Your task to perform on an android device: Go to ESPN.com Image 0: 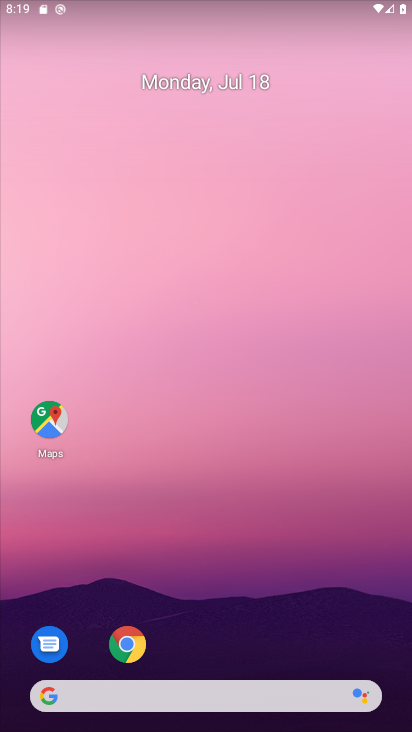
Step 0: click (238, 693)
Your task to perform on an android device: Go to ESPN.com Image 1: 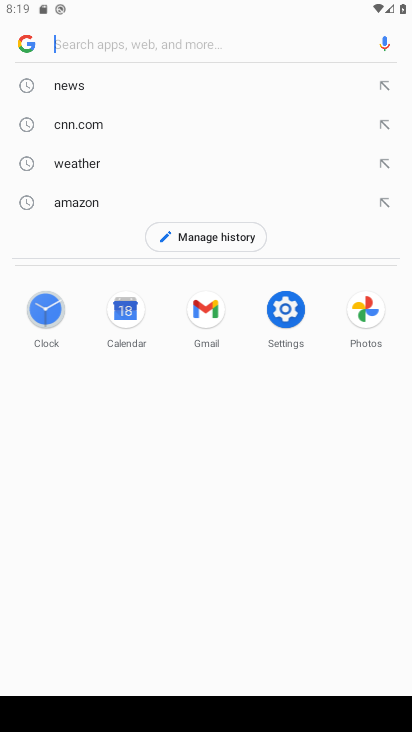
Step 1: type "espn.com"
Your task to perform on an android device: Go to ESPN.com Image 2: 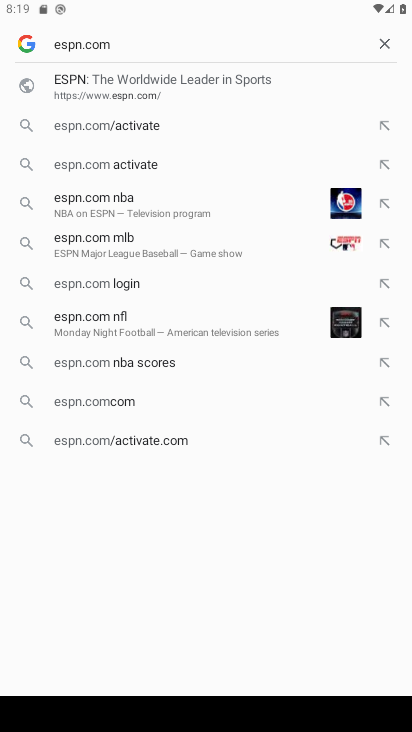
Step 2: click (150, 96)
Your task to perform on an android device: Go to ESPN.com Image 3: 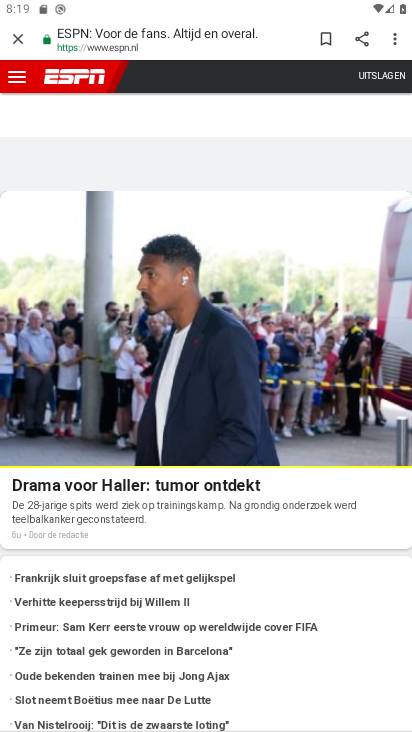
Step 3: task complete